Your task to perform on an android device: Open calendar and show me the third week of next month Image 0: 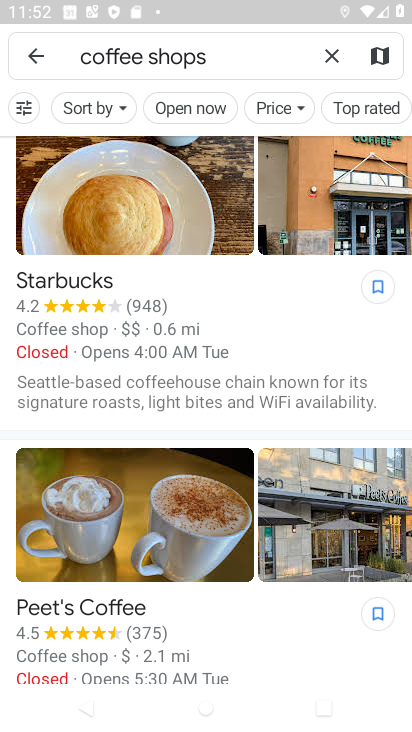
Step 0: press home button
Your task to perform on an android device: Open calendar and show me the third week of next month Image 1: 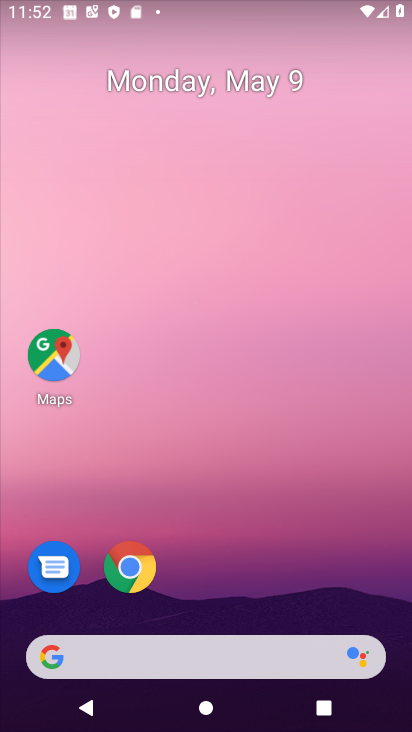
Step 1: drag from (215, 660) to (197, 150)
Your task to perform on an android device: Open calendar and show me the third week of next month Image 2: 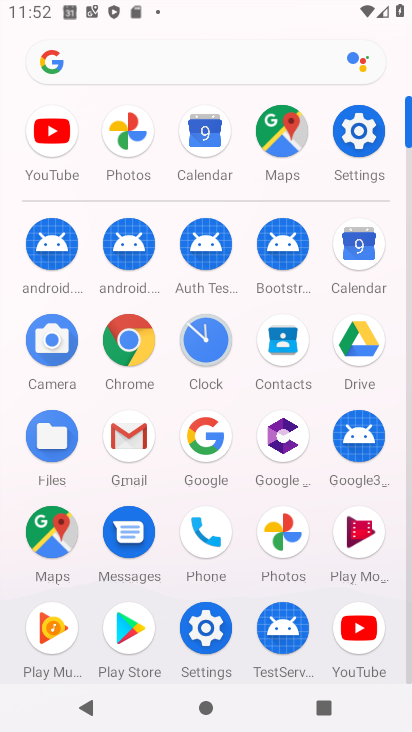
Step 2: click (362, 251)
Your task to perform on an android device: Open calendar and show me the third week of next month Image 3: 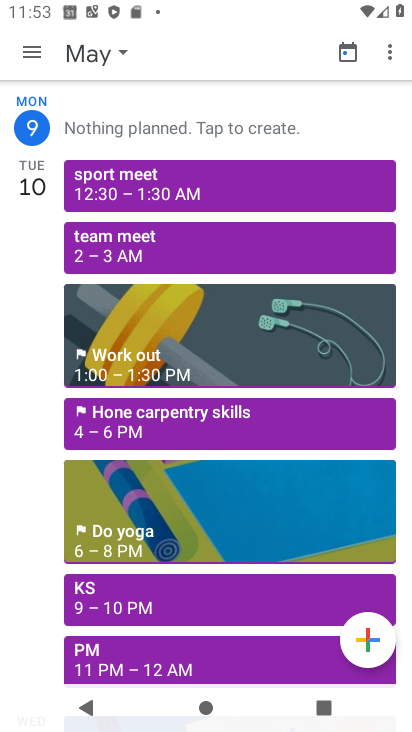
Step 3: click (41, 60)
Your task to perform on an android device: Open calendar and show me the third week of next month Image 4: 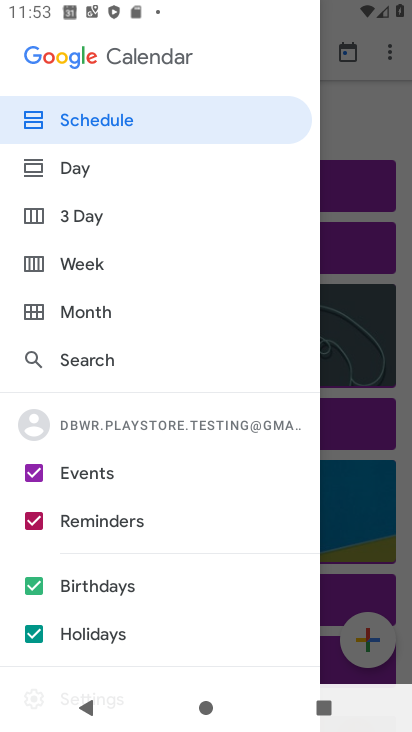
Step 4: click (96, 317)
Your task to perform on an android device: Open calendar and show me the third week of next month Image 5: 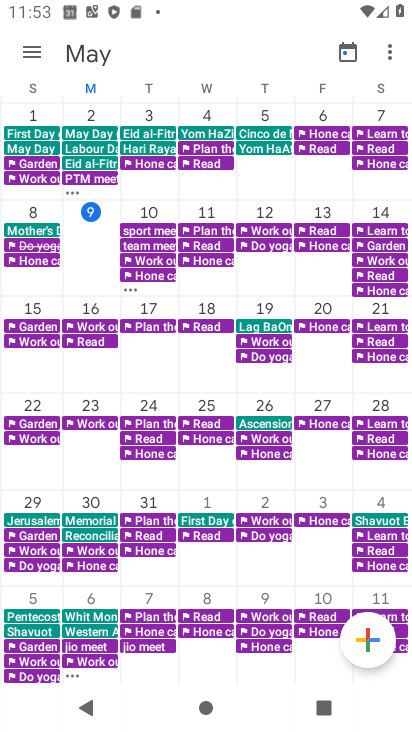
Step 5: task complete